Your task to perform on an android device: open a new tab in the chrome app Image 0: 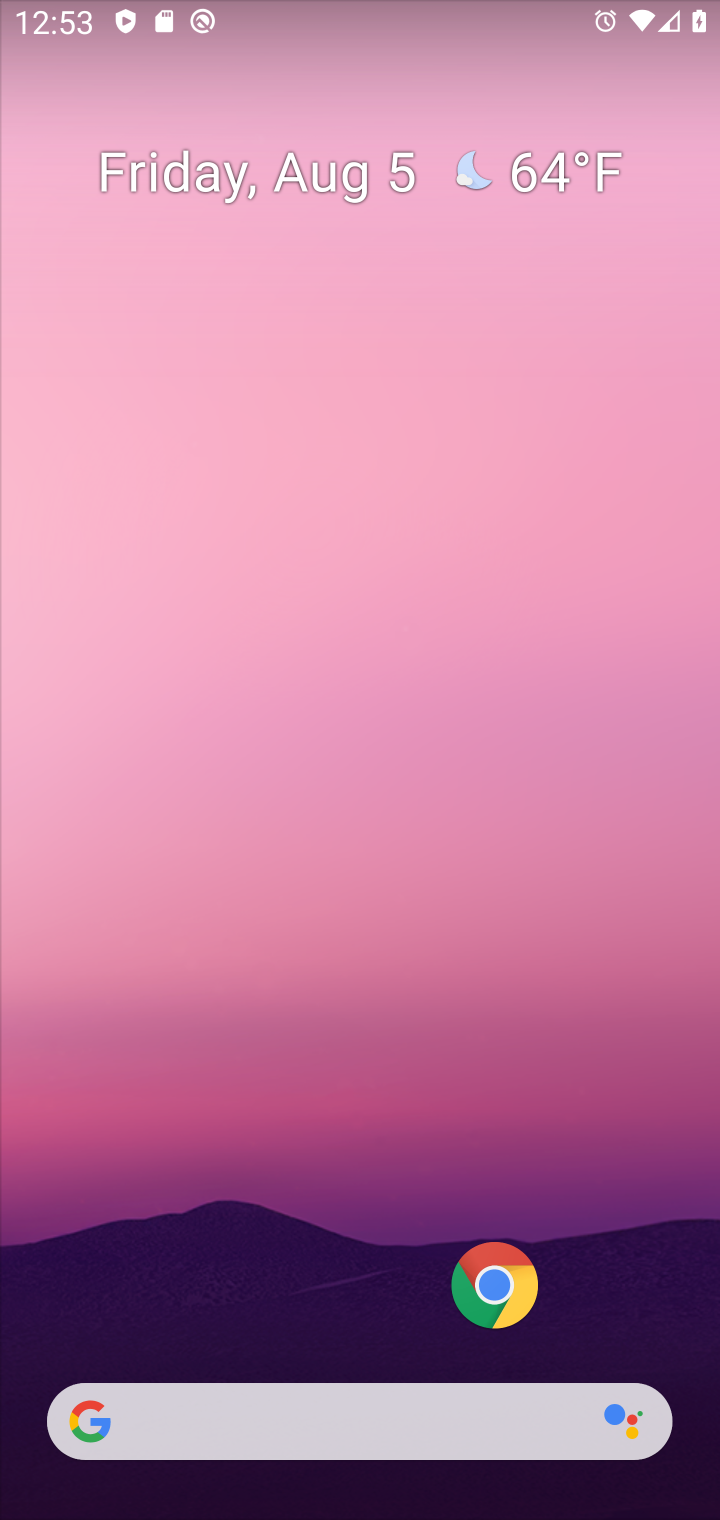
Step 0: press home button
Your task to perform on an android device: open a new tab in the chrome app Image 1: 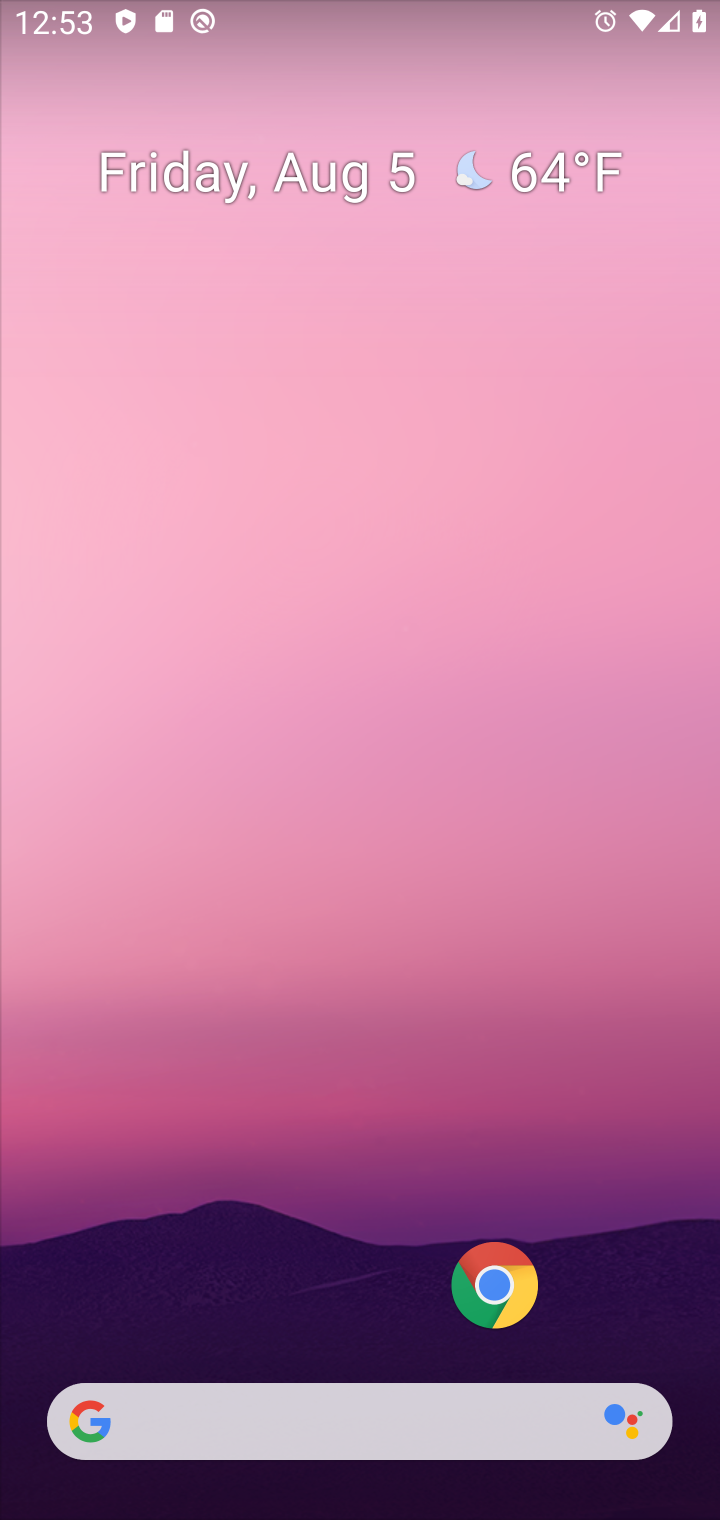
Step 1: click (442, 229)
Your task to perform on an android device: open a new tab in the chrome app Image 2: 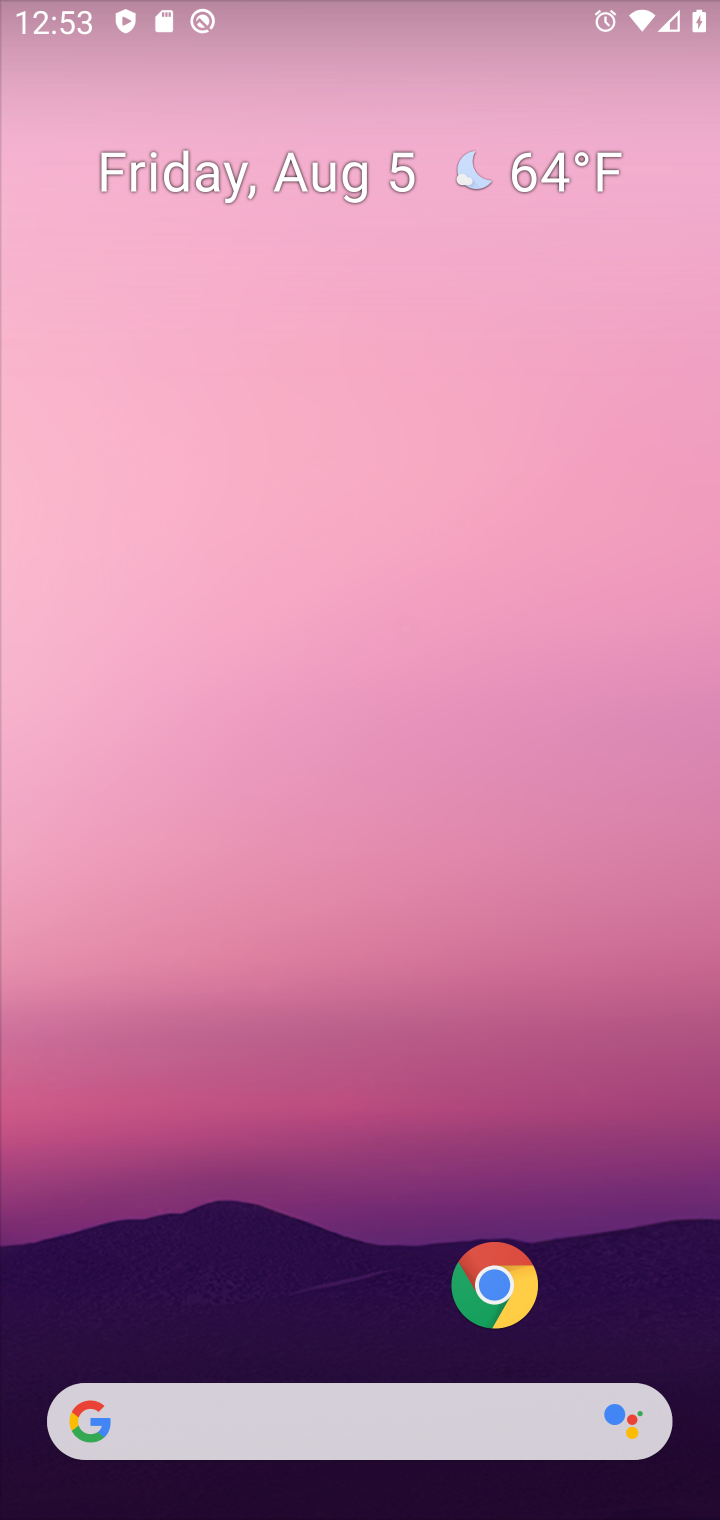
Step 2: drag from (332, 1262) to (411, 1509)
Your task to perform on an android device: open a new tab in the chrome app Image 3: 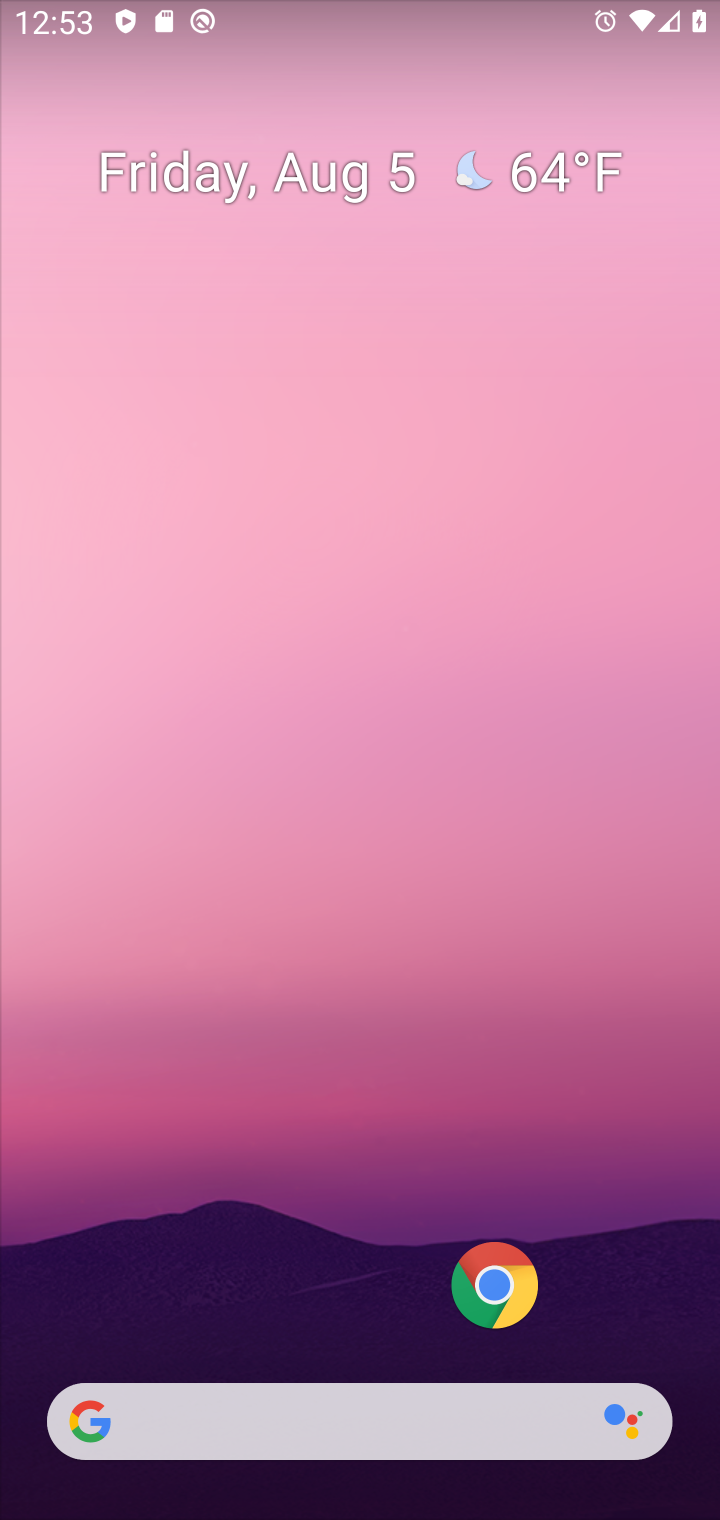
Step 3: click (495, 1316)
Your task to perform on an android device: open a new tab in the chrome app Image 4: 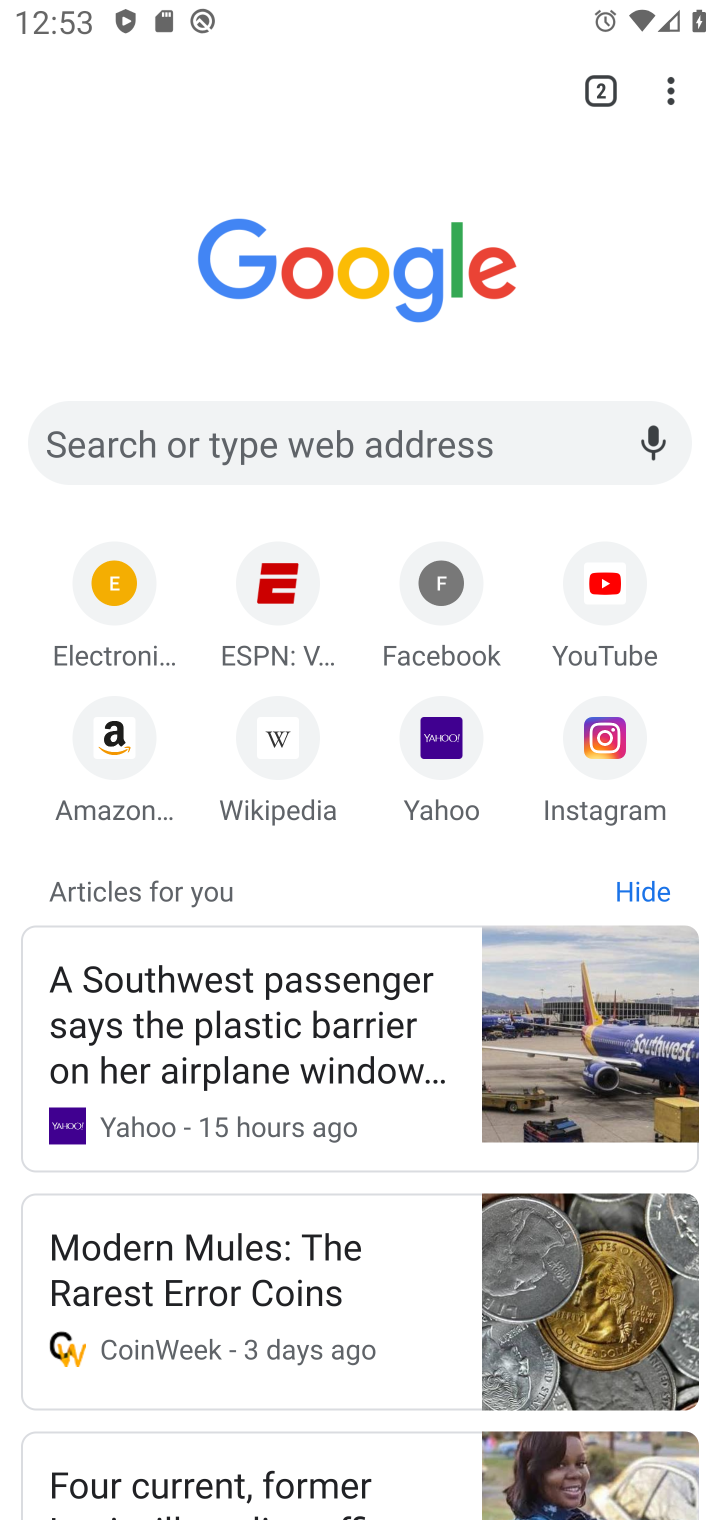
Step 4: click (599, 97)
Your task to perform on an android device: open a new tab in the chrome app Image 5: 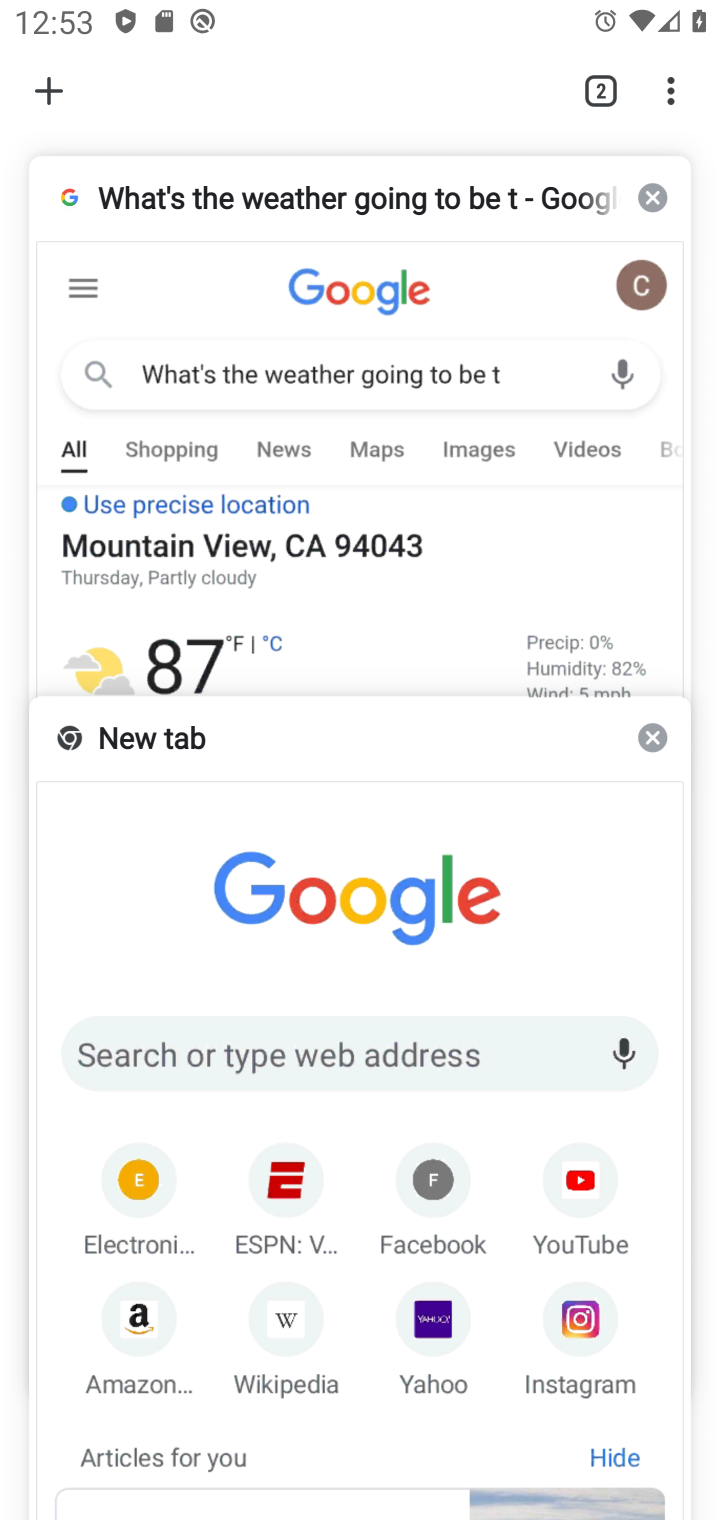
Step 5: click (40, 89)
Your task to perform on an android device: open a new tab in the chrome app Image 6: 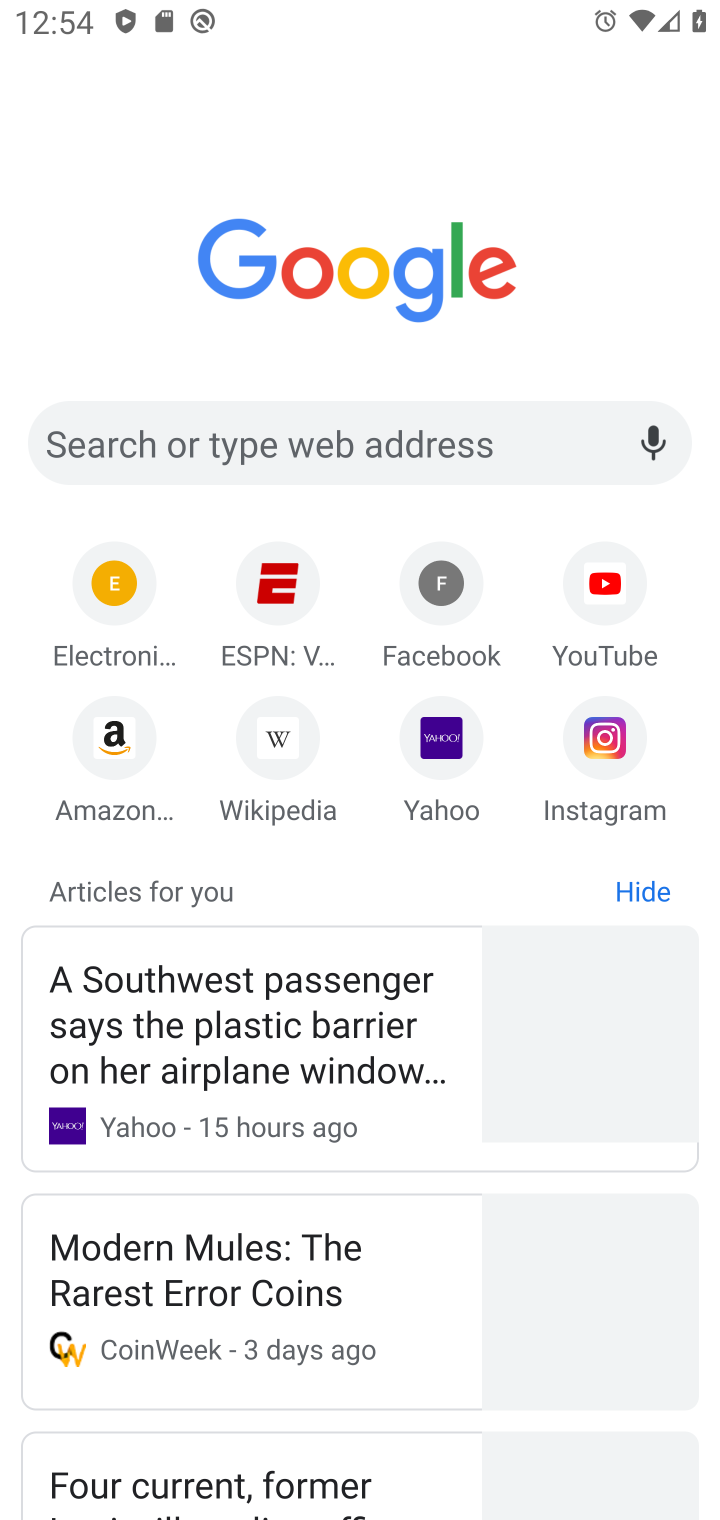
Step 6: task complete